Your task to perform on an android device: Check the news Image 0: 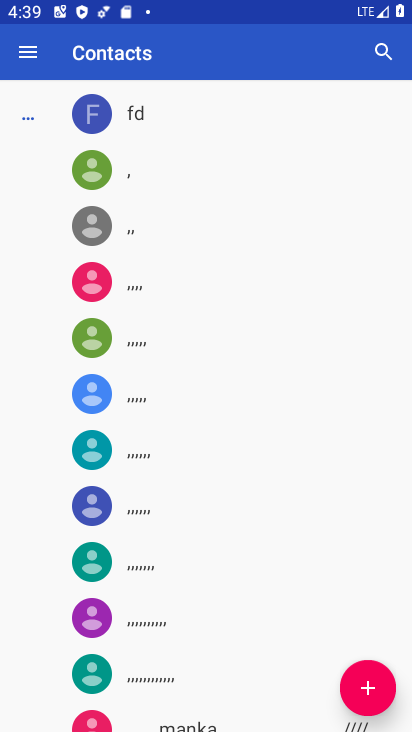
Step 0: press home button
Your task to perform on an android device: Check the news Image 1: 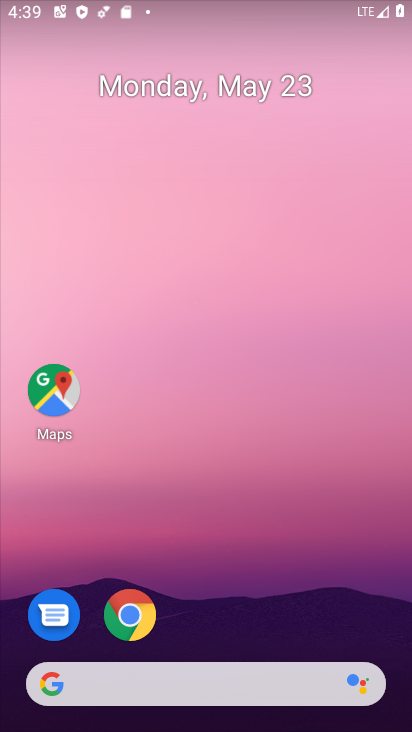
Step 1: click (126, 616)
Your task to perform on an android device: Check the news Image 2: 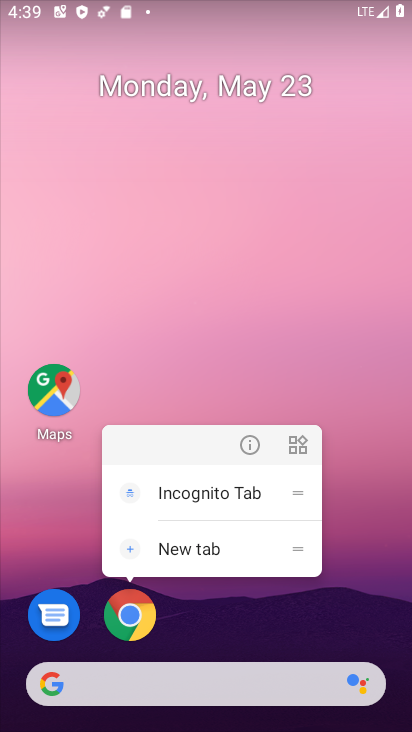
Step 2: click (131, 618)
Your task to perform on an android device: Check the news Image 3: 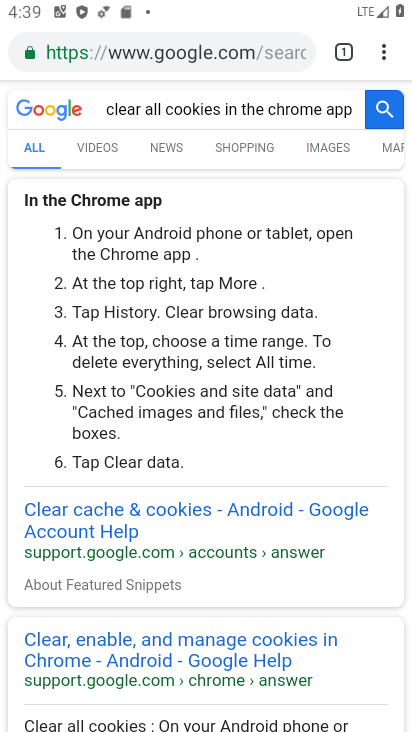
Step 3: click (198, 47)
Your task to perform on an android device: Check the news Image 4: 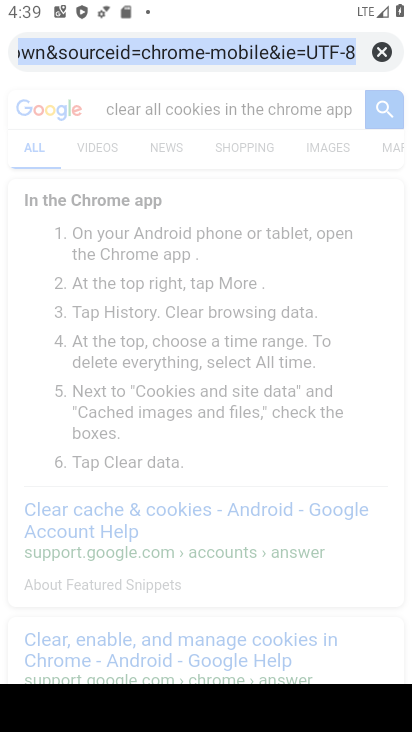
Step 4: click (385, 42)
Your task to perform on an android device: Check the news Image 5: 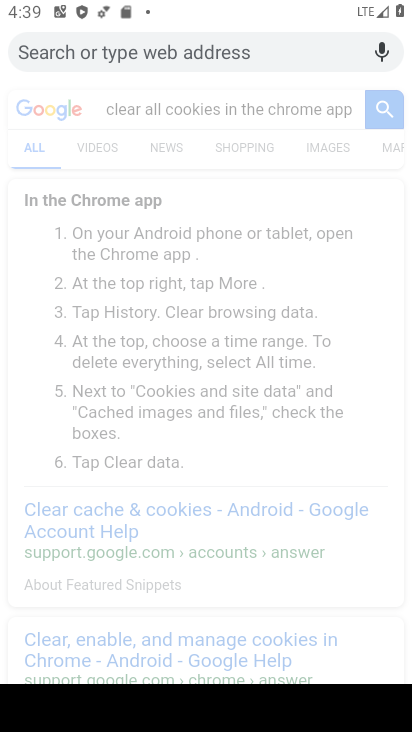
Step 5: type "Check the news"
Your task to perform on an android device: Check the news Image 6: 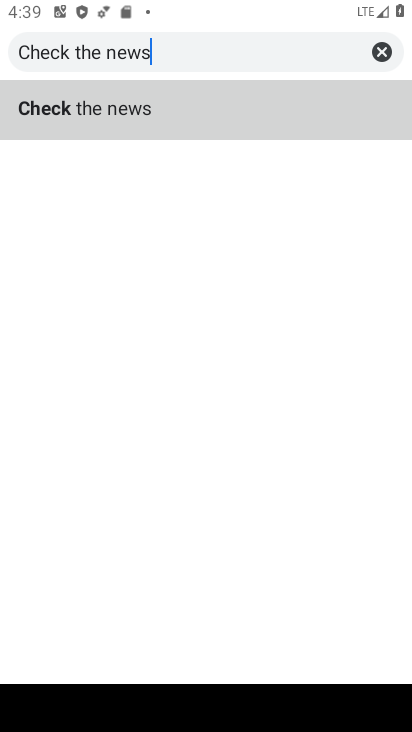
Step 6: click (44, 109)
Your task to perform on an android device: Check the news Image 7: 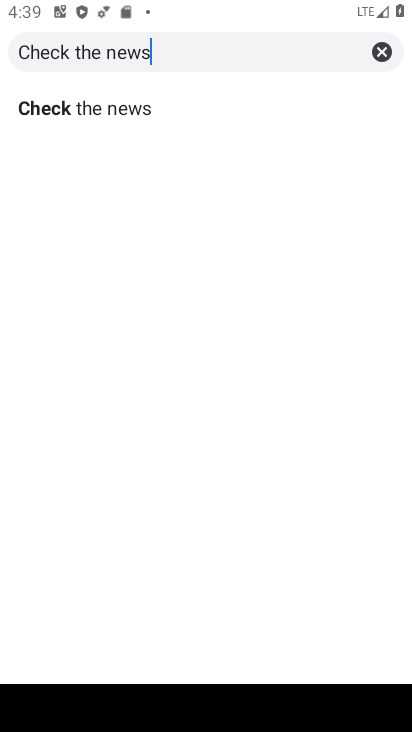
Step 7: task complete